Your task to perform on an android device: Open eBay Image 0: 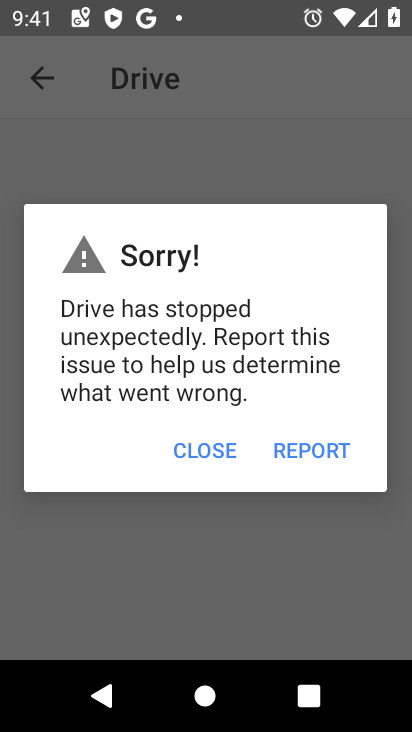
Step 0: press home button
Your task to perform on an android device: Open eBay Image 1: 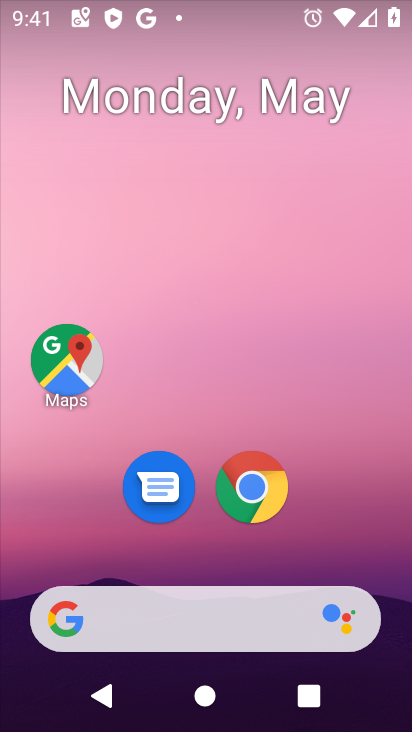
Step 1: click (193, 608)
Your task to perform on an android device: Open eBay Image 2: 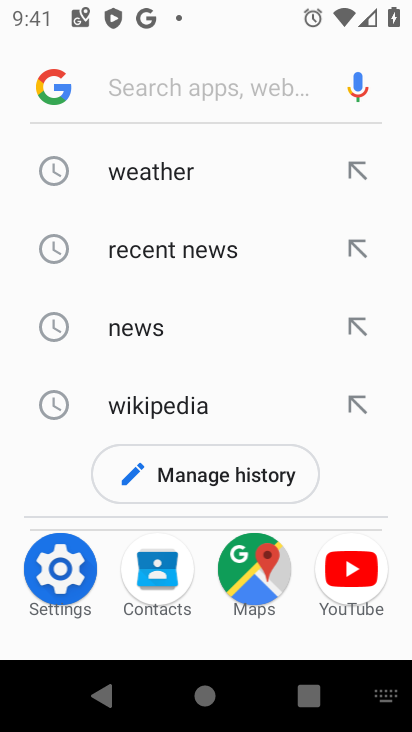
Step 2: type "ebay"
Your task to perform on an android device: Open eBay Image 3: 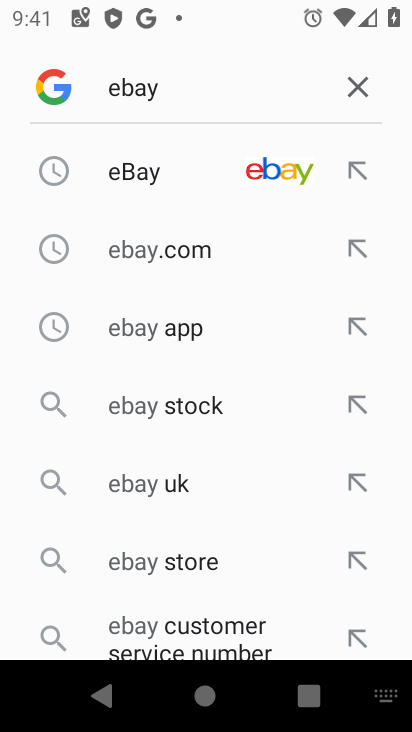
Step 3: click (217, 158)
Your task to perform on an android device: Open eBay Image 4: 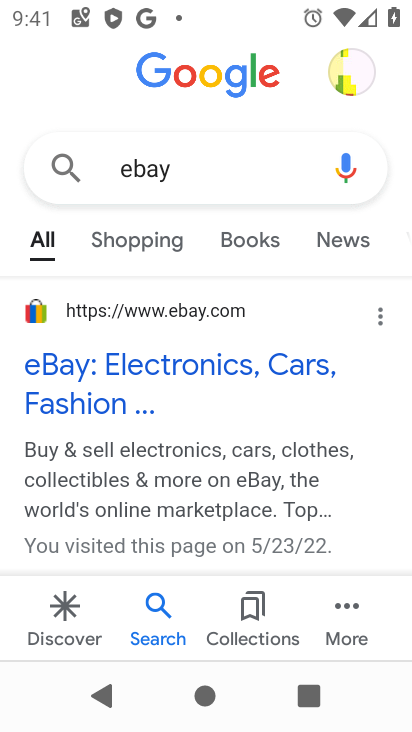
Step 4: click (204, 378)
Your task to perform on an android device: Open eBay Image 5: 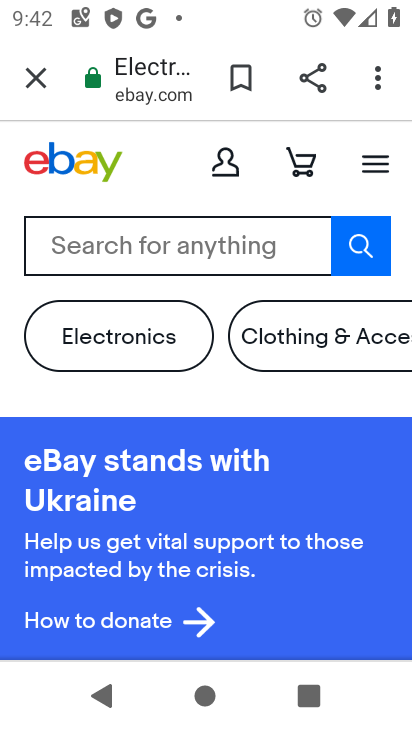
Step 5: task complete